Your task to perform on an android device: Show me popular videos on Youtube Image 0: 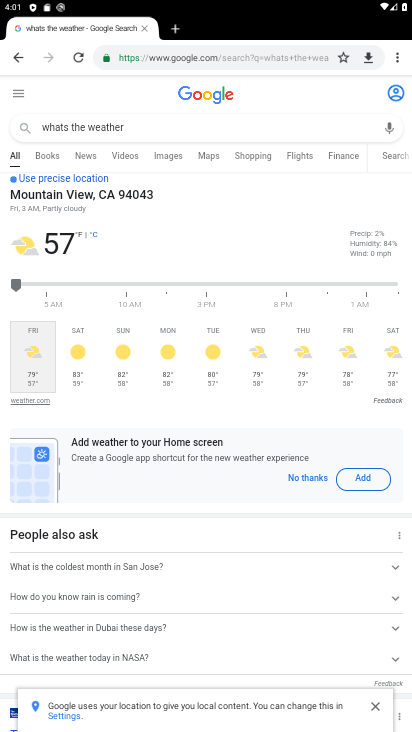
Step 0: press home button
Your task to perform on an android device: Show me popular videos on Youtube Image 1: 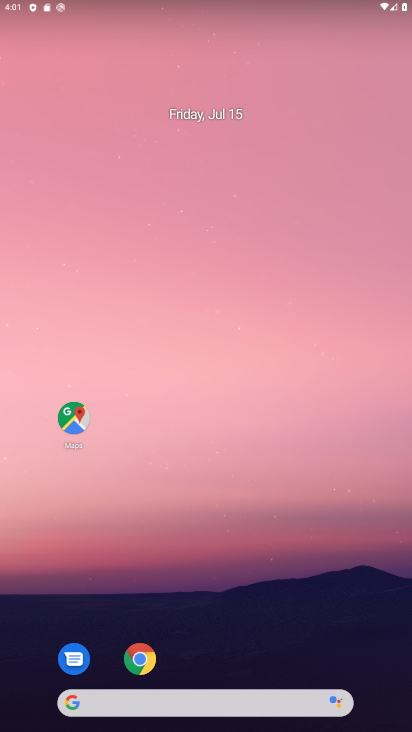
Step 1: drag from (264, 691) to (257, 68)
Your task to perform on an android device: Show me popular videos on Youtube Image 2: 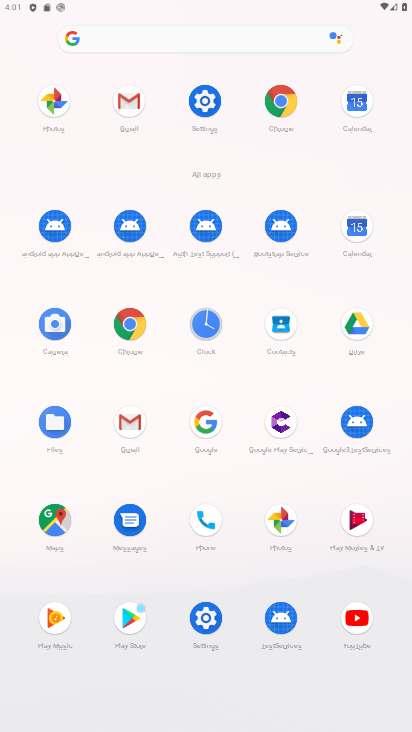
Step 2: click (365, 615)
Your task to perform on an android device: Show me popular videos on Youtube Image 3: 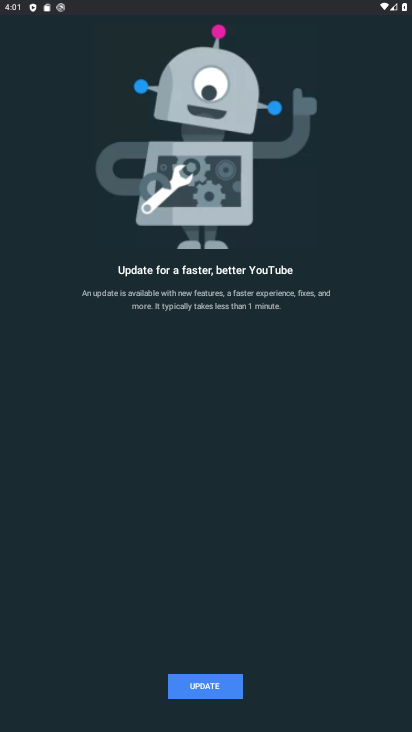
Step 3: click (192, 690)
Your task to perform on an android device: Show me popular videos on Youtube Image 4: 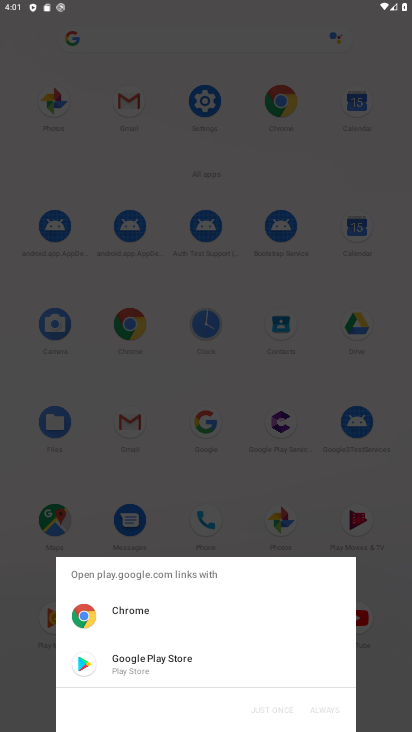
Step 4: click (150, 659)
Your task to perform on an android device: Show me popular videos on Youtube Image 5: 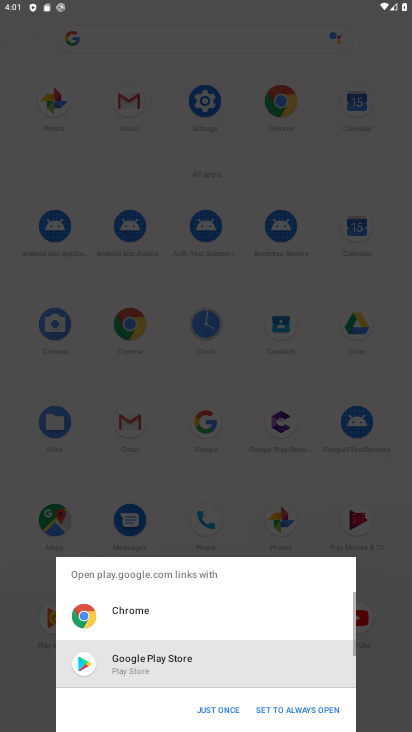
Step 5: click (206, 712)
Your task to perform on an android device: Show me popular videos on Youtube Image 6: 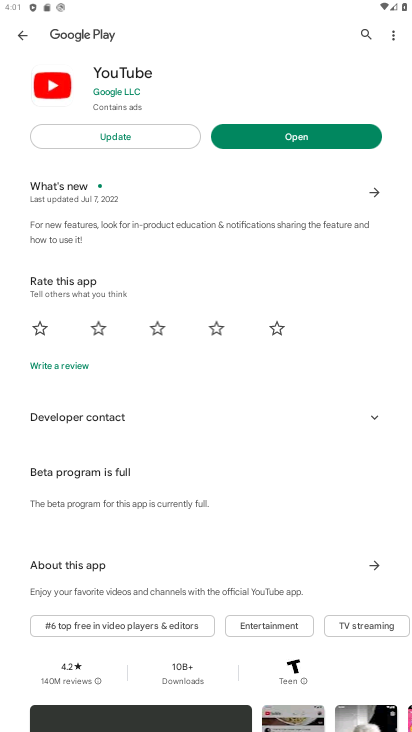
Step 6: click (128, 141)
Your task to perform on an android device: Show me popular videos on Youtube Image 7: 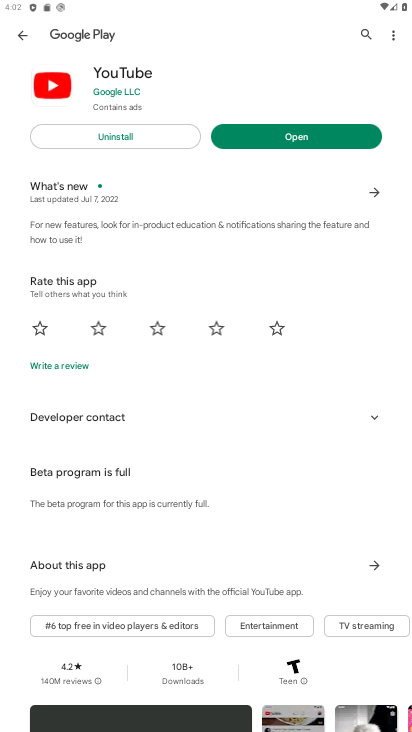
Step 7: click (272, 132)
Your task to perform on an android device: Show me popular videos on Youtube Image 8: 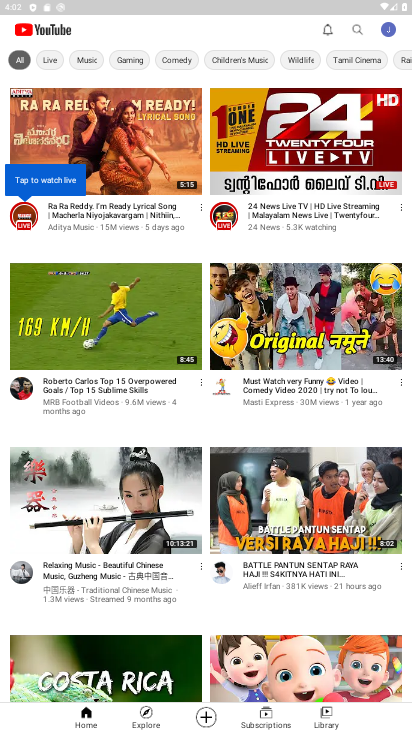
Step 8: task complete